Your task to perform on an android device: turn on data saver in the chrome app Image 0: 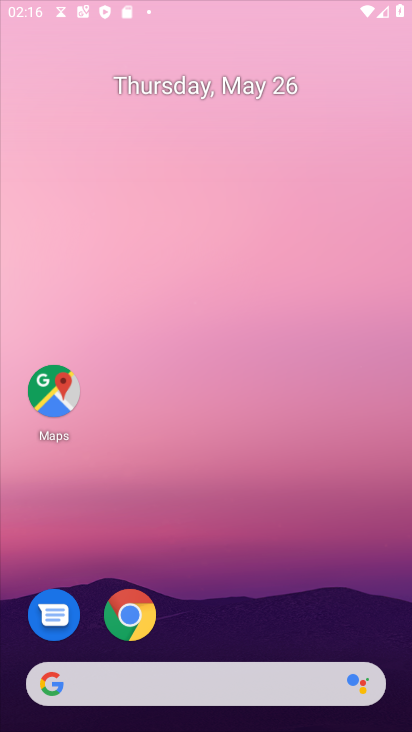
Step 0: press home button
Your task to perform on an android device: turn on data saver in the chrome app Image 1: 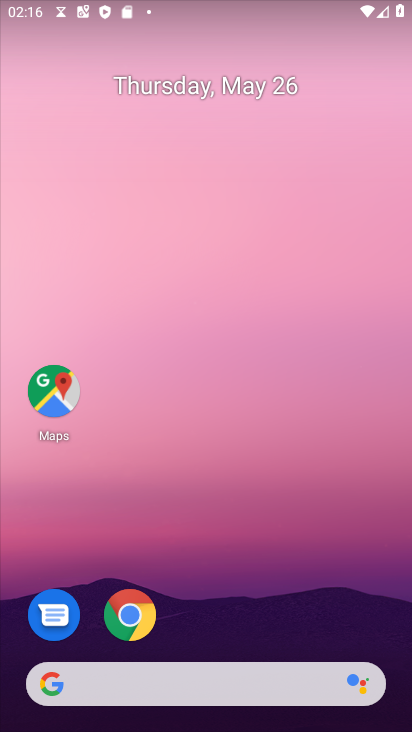
Step 1: click (126, 609)
Your task to perform on an android device: turn on data saver in the chrome app Image 2: 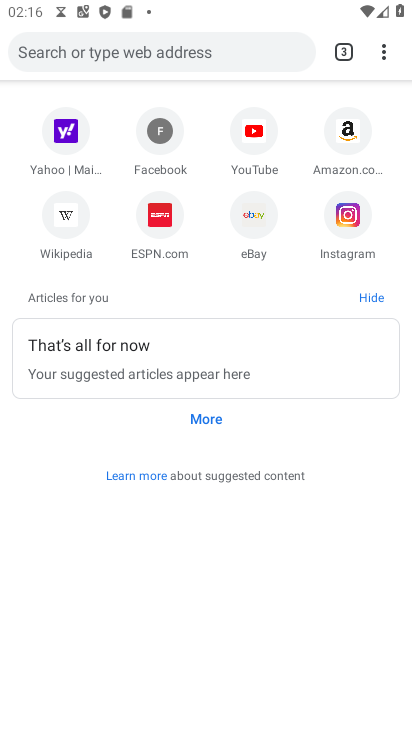
Step 2: click (382, 51)
Your task to perform on an android device: turn on data saver in the chrome app Image 3: 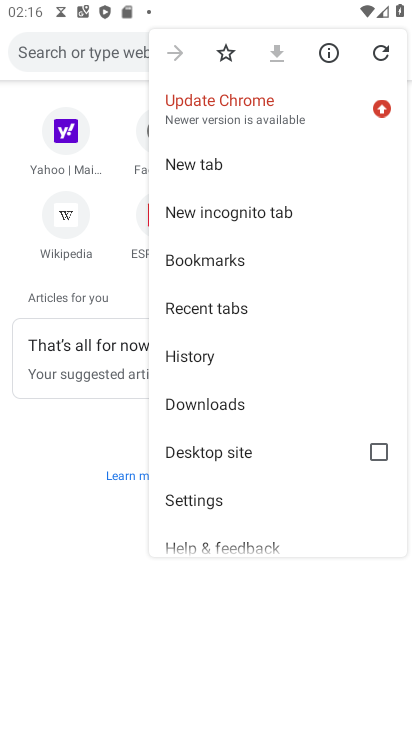
Step 3: click (224, 495)
Your task to perform on an android device: turn on data saver in the chrome app Image 4: 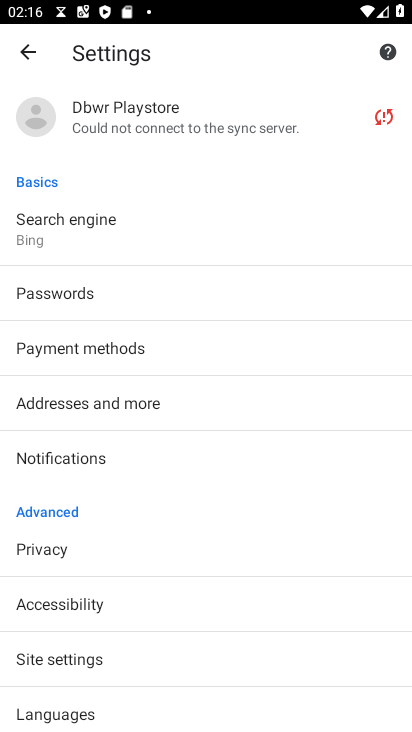
Step 4: drag from (204, 689) to (221, 220)
Your task to perform on an android device: turn on data saver in the chrome app Image 5: 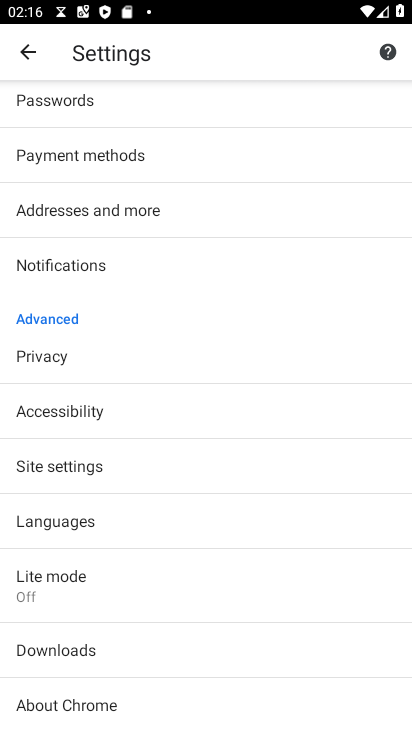
Step 5: click (60, 592)
Your task to perform on an android device: turn on data saver in the chrome app Image 6: 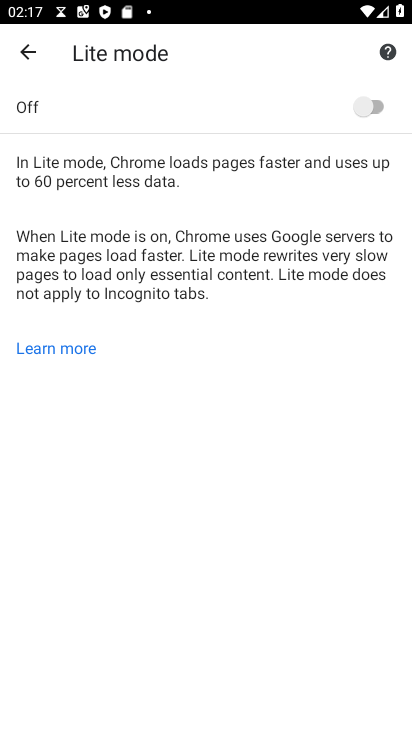
Step 6: click (377, 102)
Your task to perform on an android device: turn on data saver in the chrome app Image 7: 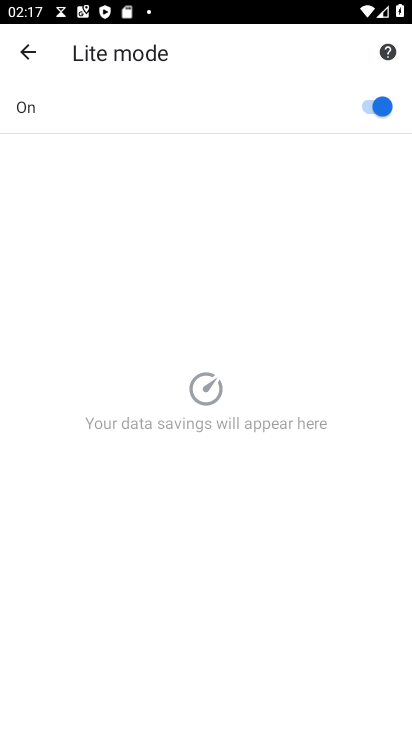
Step 7: task complete